Your task to perform on an android device: Search for the best fantasy books on Goodreads. Image 0: 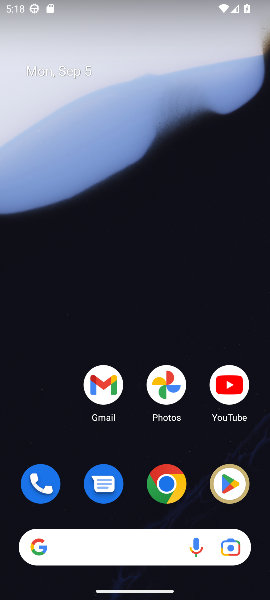
Step 0: click (172, 483)
Your task to perform on an android device: Search for the best fantasy books on Goodreads. Image 1: 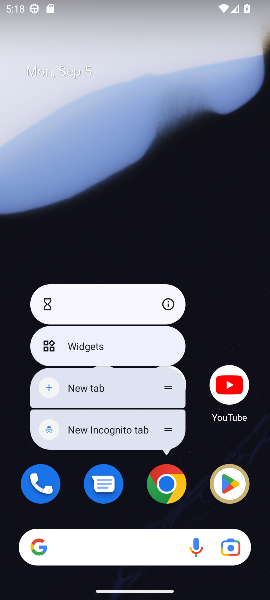
Step 1: click (168, 485)
Your task to perform on an android device: Search for the best fantasy books on Goodreads. Image 2: 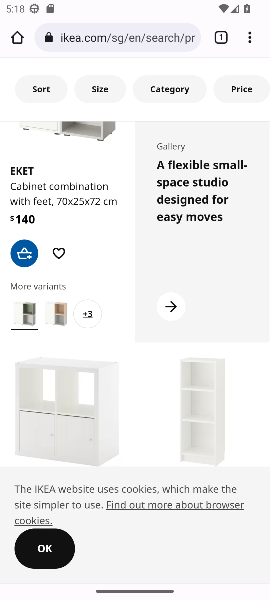
Step 2: click (131, 36)
Your task to perform on an android device: Search for the best fantasy books on Goodreads. Image 3: 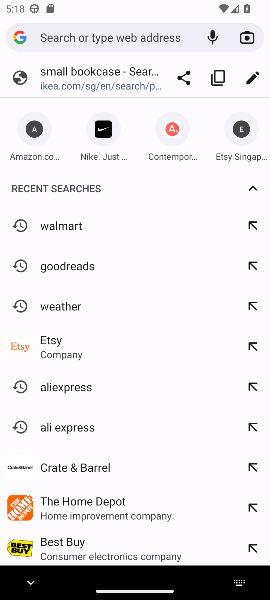
Step 3: press enter
Your task to perform on an android device: Search for the best fantasy books on Goodreads. Image 4: 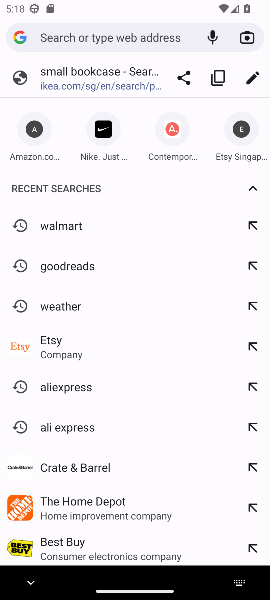
Step 4: type " Goodreads"
Your task to perform on an android device: Search for the best fantasy books on Goodreads. Image 5: 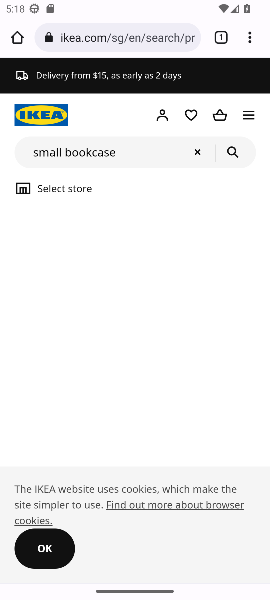
Step 5: click (149, 35)
Your task to perform on an android device: Search for the best fantasy books on Goodreads. Image 6: 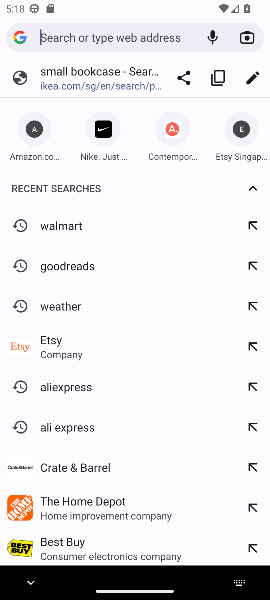
Step 6: type " Goodreads"
Your task to perform on an android device: Search for the best fantasy books on Goodreads. Image 7: 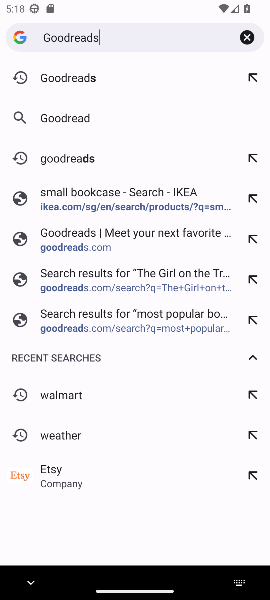
Step 7: press enter
Your task to perform on an android device: Search for the best fantasy books on Goodreads. Image 8: 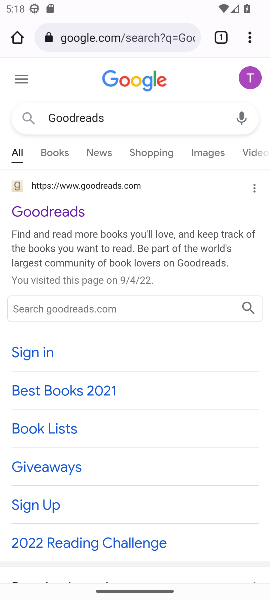
Step 8: click (56, 217)
Your task to perform on an android device: Search for the best fantasy books on Goodreads. Image 9: 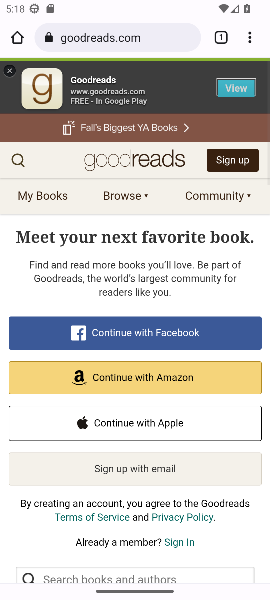
Step 9: click (18, 159)
Your task to perform on an android device: Search for the best fantasy books on Goodreads. Image 10: 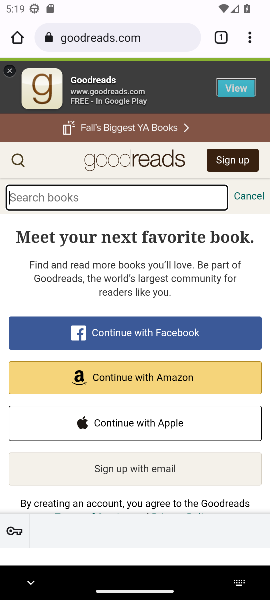
Step 10: type "best fantasy books"
Your task to perform on an android device: Search for the best fantasy books on Goodreads. Image 11: 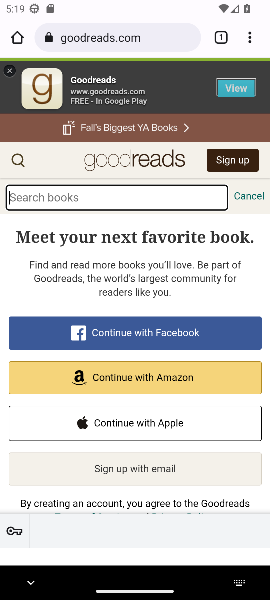
Step 11: press enter
Your task to perform on an android device: Search for the best fantasy books on Goodreads. Image 12: 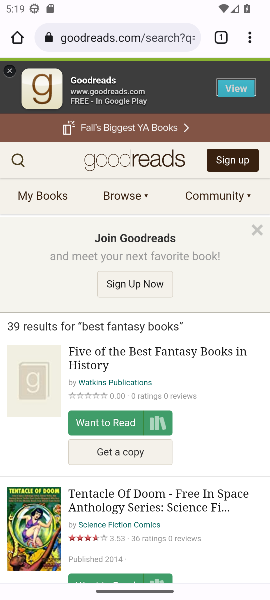
Step 12: task complete